Your task to perform on an android device: find which apps use the phone's location Image 0: 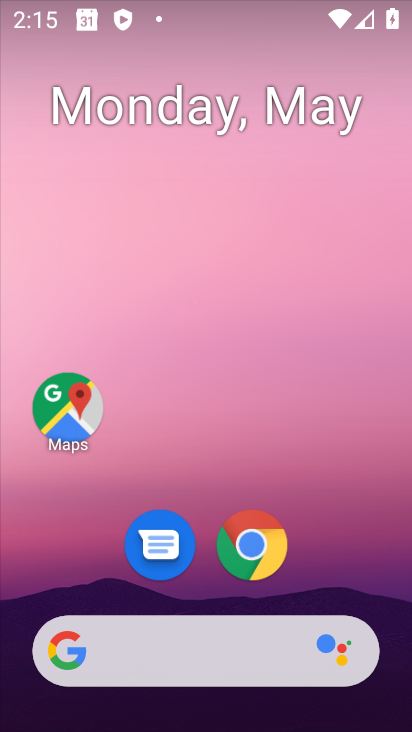
Step 0: drag from (204, 605) to (215, 177)
Your task to perform on an android device: find which apps use the phone's location Image 1: 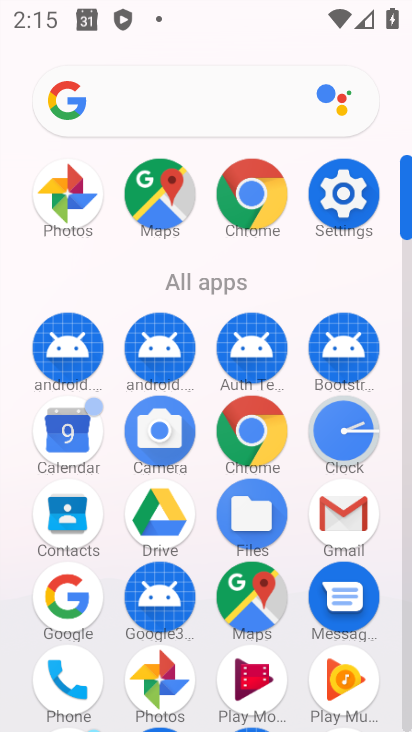
Step 1: click (329, 196)
Your task to perform on an android device: find which apps use the phone's location Image 2: 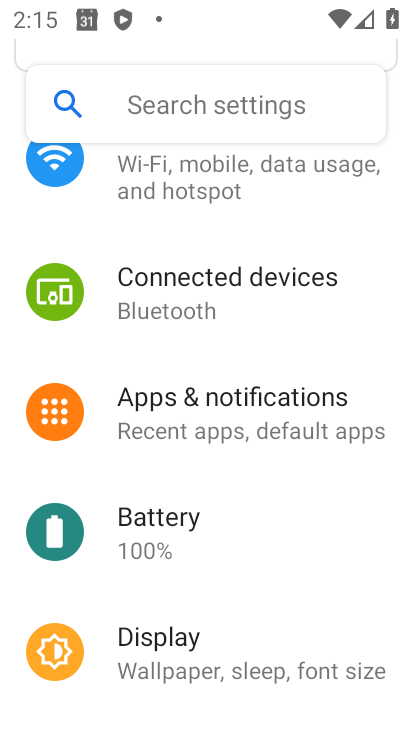
Step 2: drag from (247, 591) to (292, 312)
Your task to perform on an android device: find which apps use the phone's location Image 3: 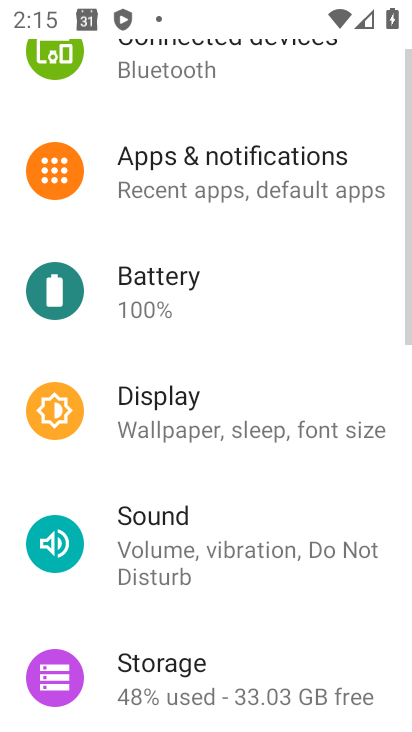
Step 3: drag from (243, 635) to (293, 312)
Your task to perform on an android device: find which apps use the phone's location Image 4: 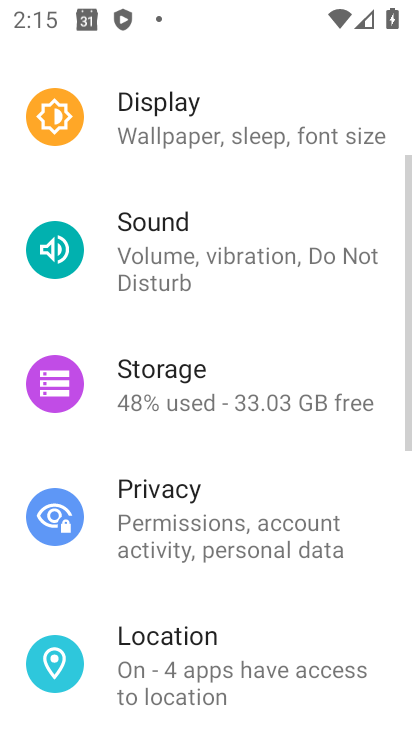
Step 4: click (215, 660)
Your task to perform on an android device: find which apps use the phone's location Image 5: 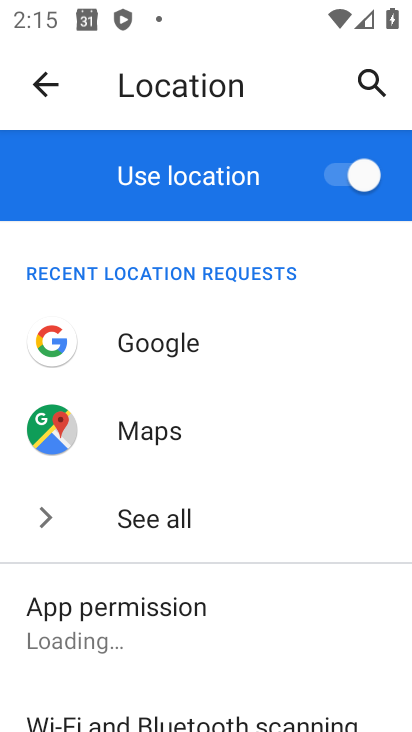
Step 5: drag from (212, 635) to (294, 333)
Your task to perform on an android device: find which apps use the phone's location Image 6: 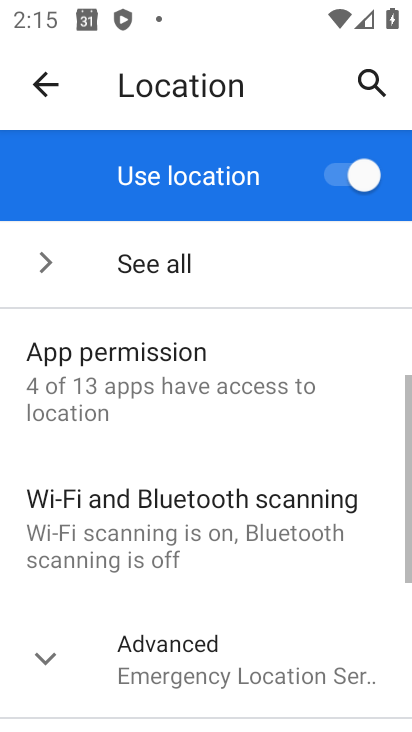
Step 6: click (199, 670)
Your task to perform on an android device: find which apps use the phone's location Image 7: 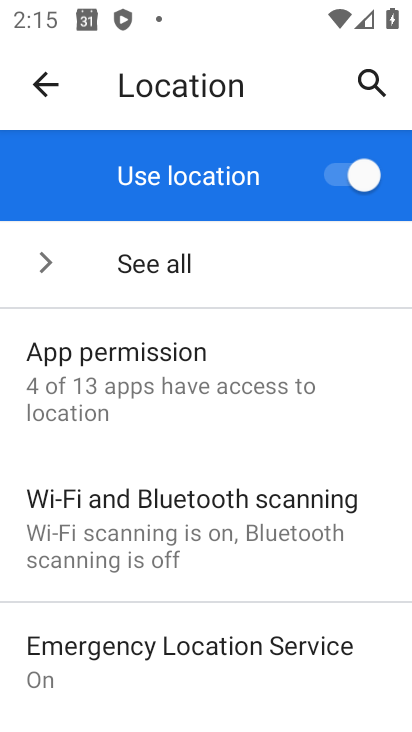
Step 7: drag from (225, 611) to (256, 679)
Your task to perform on an android device: find which apps use the phone's location Image 8: 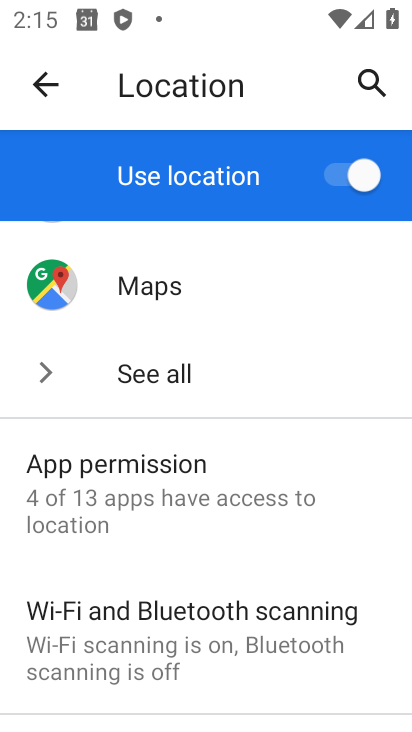
Step 8: click (187, 514)
Your task to perform on an android device: find which apps use the phone's location Image 9: 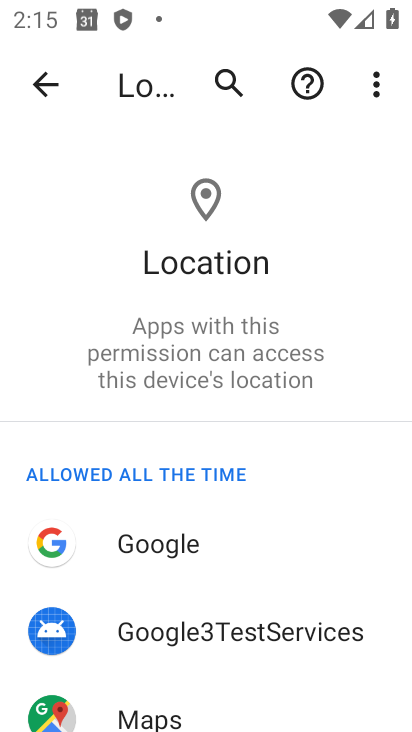
Step 9: task complete